Your task to perform on an android device: change the clock display to show seconds Image 0: 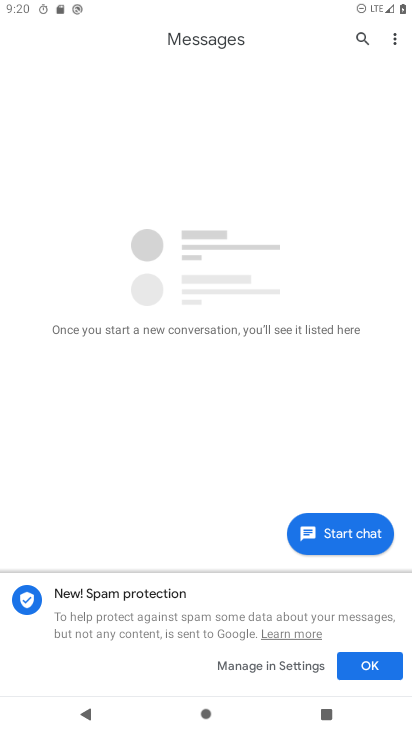
Step 0: press home button
Your task to perform on an android device: change the clock display to show seconds Image 1: 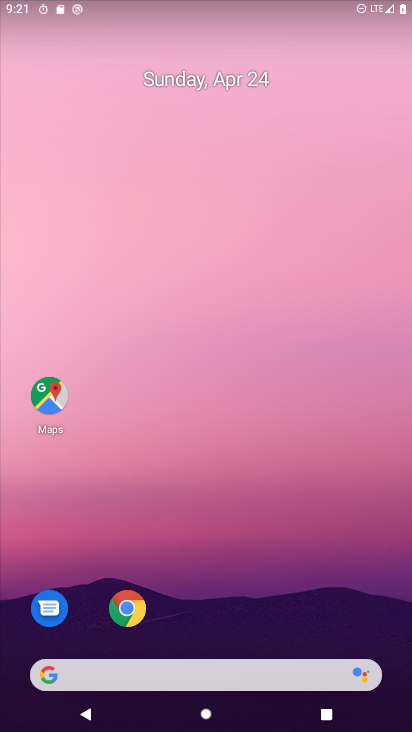
Step 1: drag from (277, 523) to (276, 31)
Your task to perform on an android device: change the clock display to show seconds Image 2: 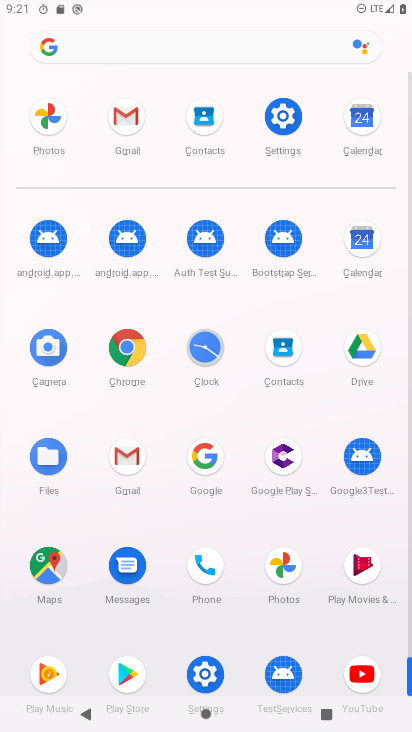
Step 2: click (214, 344)
Your task to perform on an android device: change the clock display to show seconds Image 3: 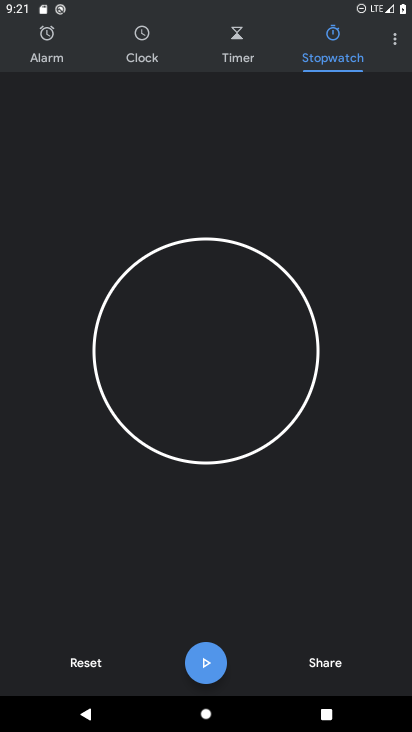
Step 3: click (400, 36)
Your task to perform on an android device: change the clock display to show seconds Image 4: 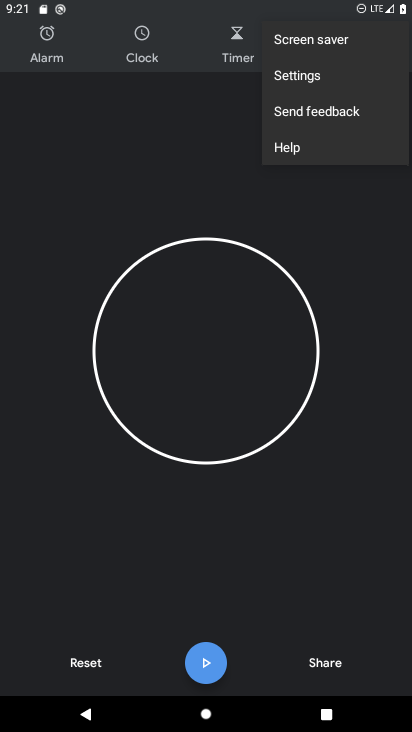
Step 4: click (348, 72)
Your task to perform on an android device: change the clock display to show seconds Image 5: 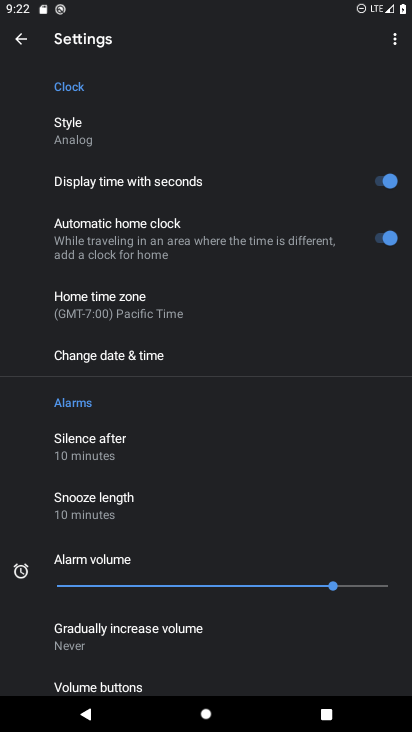
Step 5: task complete